Your task to perform on an android device: Go to wifi settings Image 0: 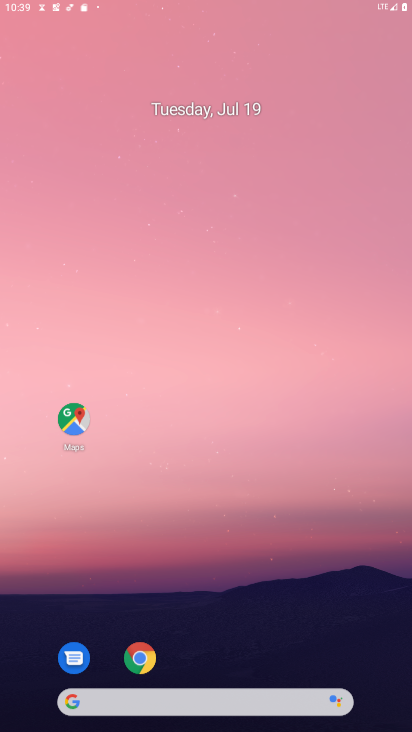
Step 0: drag from (192, 664) to (309, 71)
Your task to perform on an android device: Go to wifi settings Image 1: 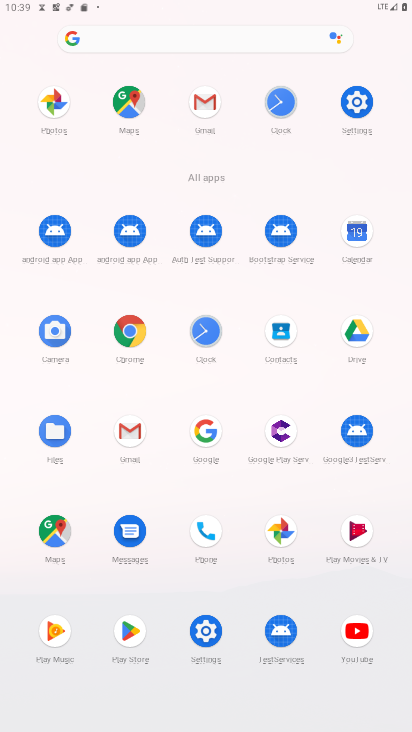
Step 1: click (196, 627)
Your task to perform on an android device: Go to wifi settings Image 2: 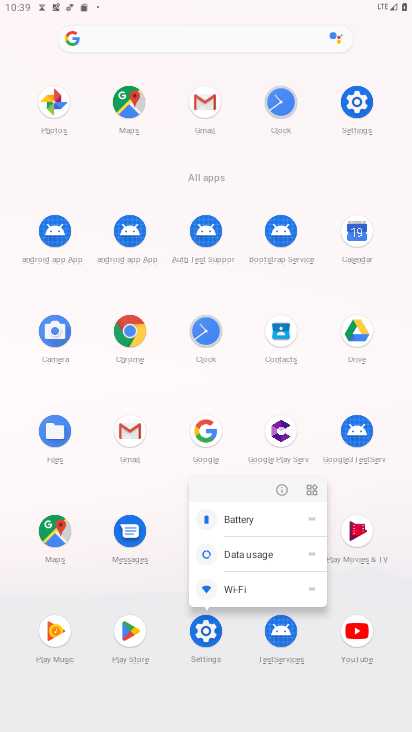
Step 2: click (282, 493)
Your task to perform on an android device: Go to wifi settings Image 3: 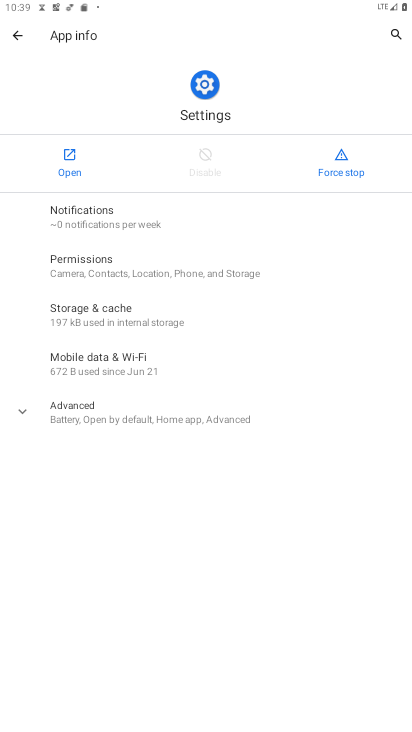
Step 3: click (63, 160)
Your task to perform on an android device: Go to wifi settings Image 4: 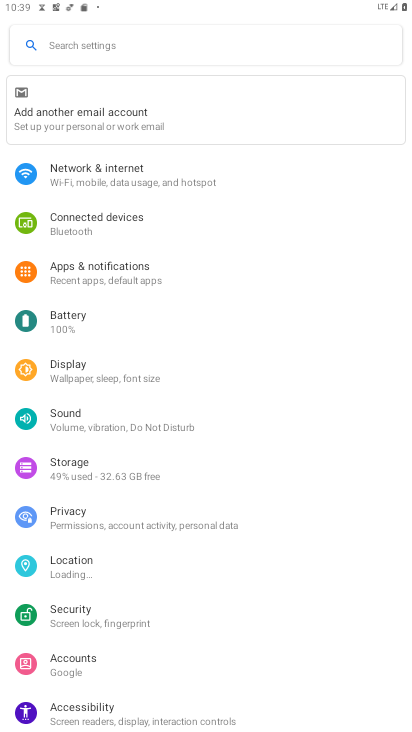
Step 4: click (98, 176)
Your task to perform on an android device: Go to wifi settings Image 5: 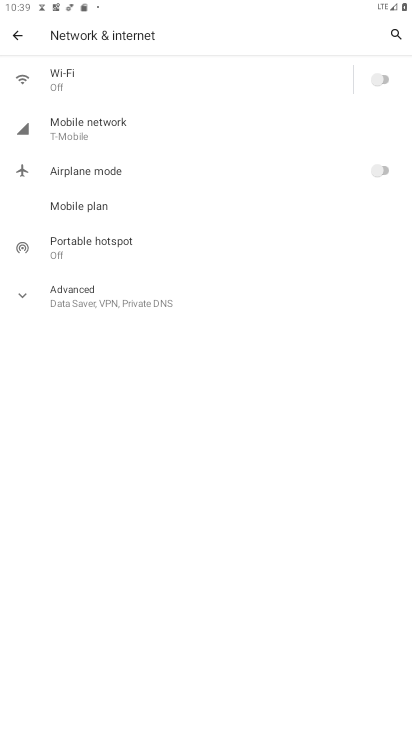
Step 5: click (132, 87)
Your task to perform on an android device: Go to wifi settings Image 6: 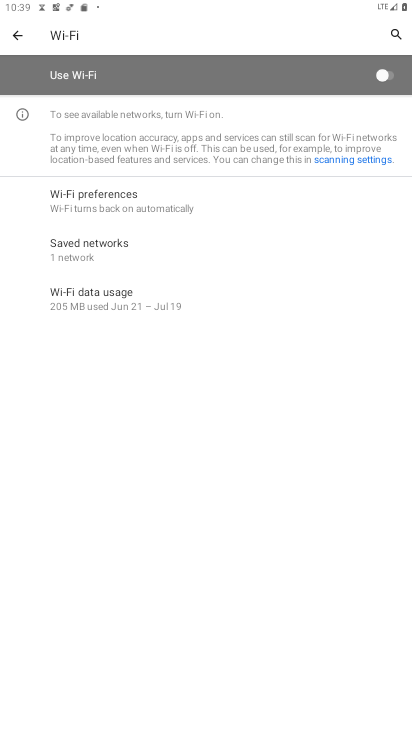
Step 6: task complete